Your task to perform on an android device: turn off notifications in google photos Image 0: 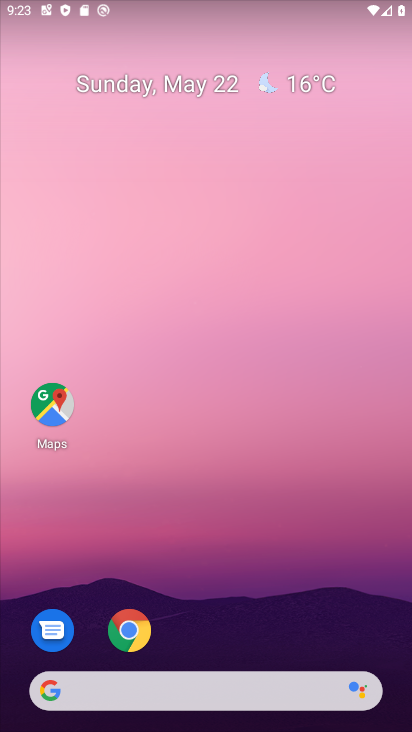
Step 0: drag from (383, 664) to (324, 149)
Your task to perform on an android device: turn off notifications in google photos Image 1: 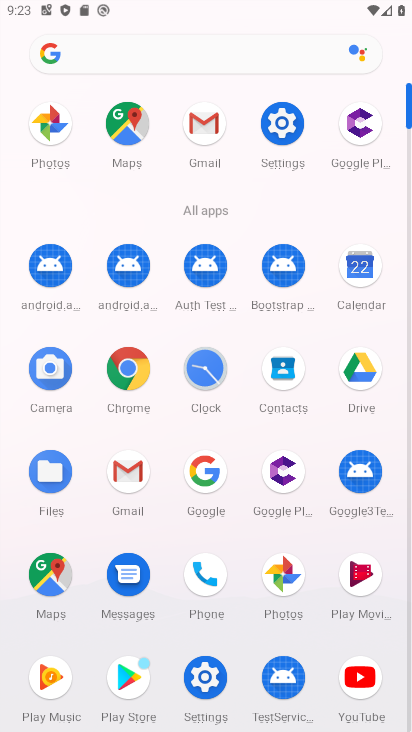
Step 1: click (285, 569)
Your task to perform on an android device: turn off notifications in google photos Image 2: 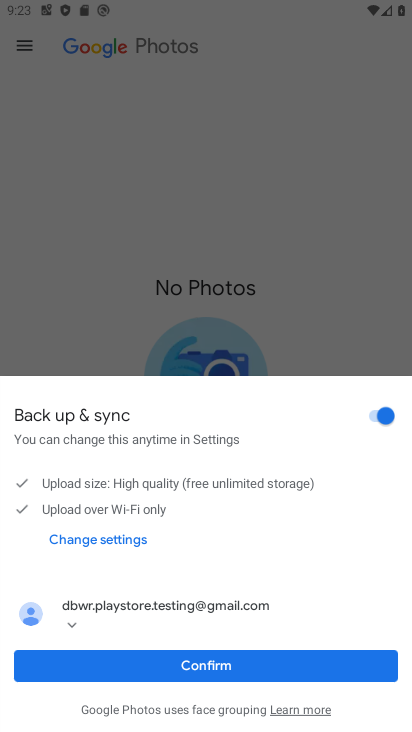
Step 2: click (208, 649)
Your task to perform on an android device: turn off notifications in google photos Image 3: 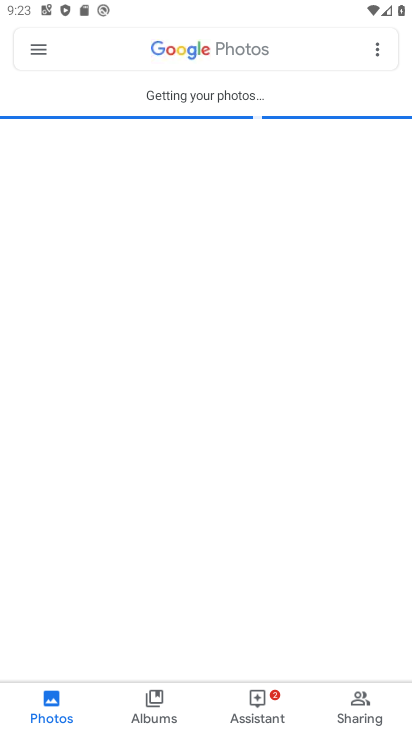
Step 3: click (35, 46)
Your task to perform on an android device: turn off notifications in google photos Image 4: 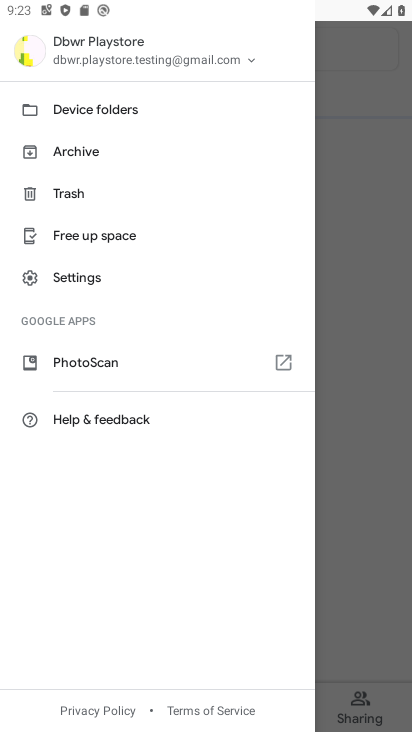
Step 4: click (83, 268)
Your task to perform on an android device: turn off notifications in google photos Image 5: 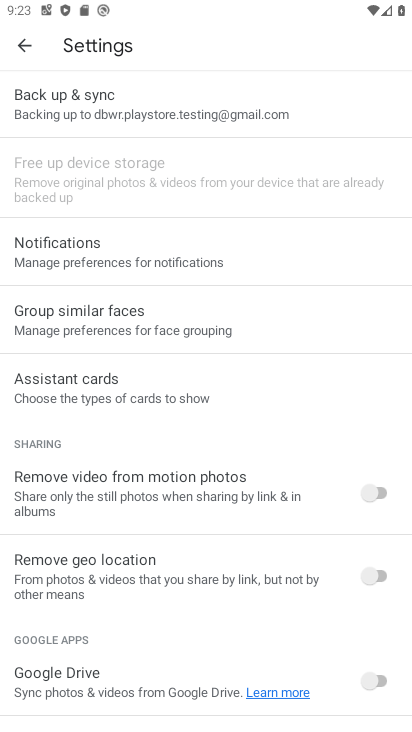
Step 5: click (89, 254)
Your task to perform on an android device: turn off notifications in google photos Image 6: 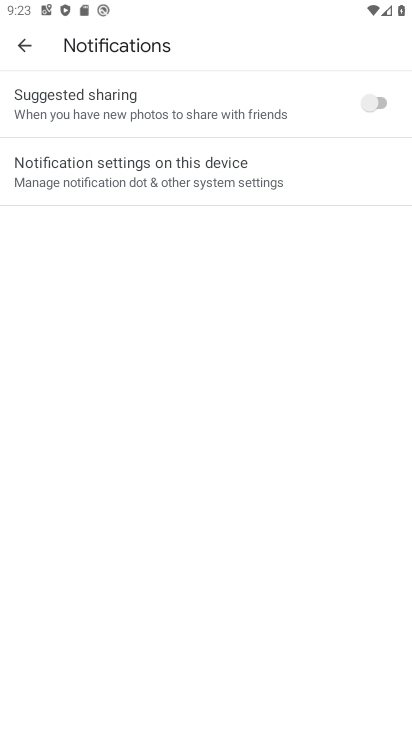
Step 6: click (128, 164)
Your task to perform on an android device: turn off notifications in google photos Image 7: 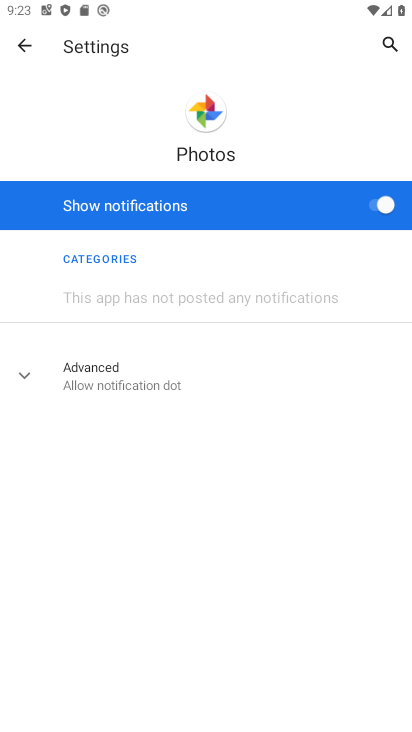
Step 7: click (372, 210)
Your task to perform on an android device: turn off notifications in google photos Image 8: 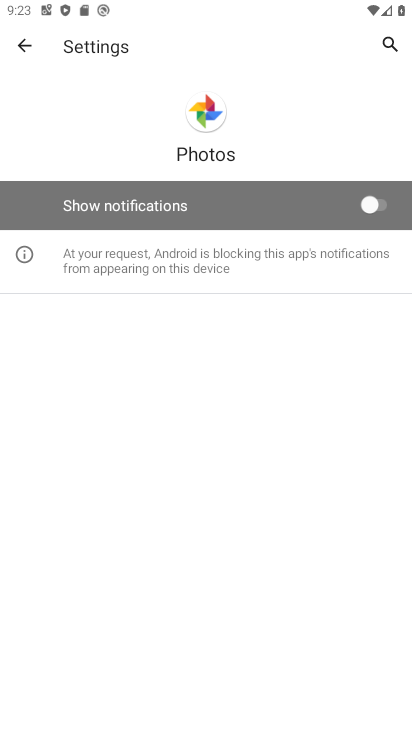
Step 8: task complete